Your task to perform on an android device: Search for seafood restaurants on Google Maps Image 0: 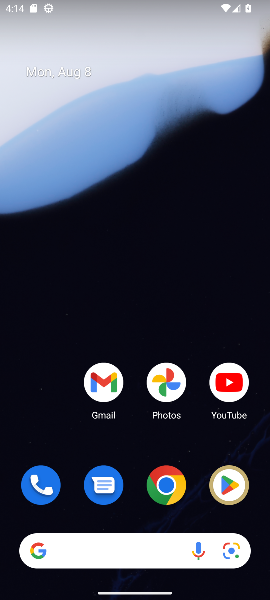
Step 0: drag from (193, 514) to (122, 141)
Your task to perform on an android device: Search for seafood restaurants on Google Maps Image 1: 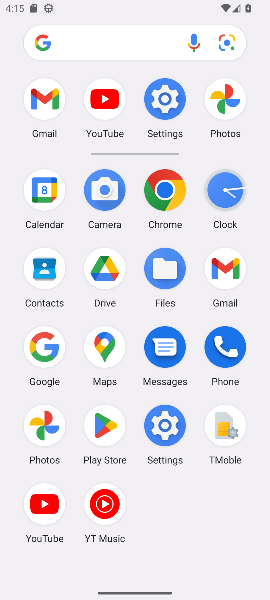
Step 1: click (110, 350)
Your task to perform on an android device: Search for seafood restaurants on Google Maps Image 2: 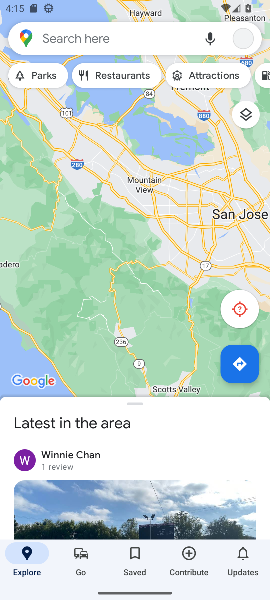
Step 2: click (82, 45)
Your task to perform on an android device: Search for seafood restaurants on Google Maps Image 3: 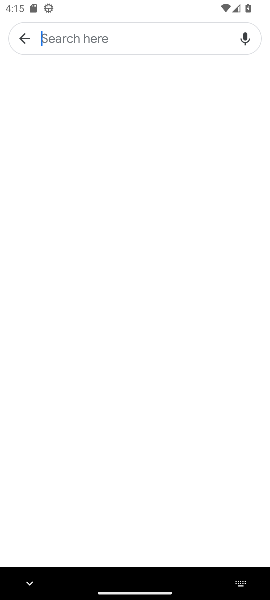
Step 3: type "seafood restaurants"
Your task to perform on an android device: Search for seafood restaurants on Google Maps Image 4: 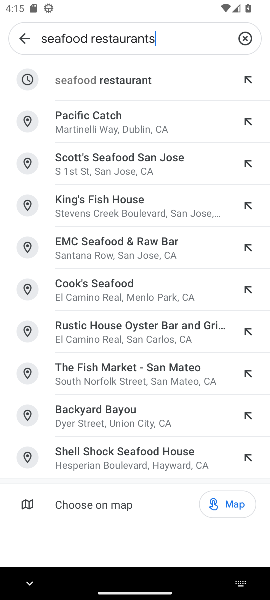
Step 4: click (87, 88)
Your task to perform on an android device: Search for seafood restaurants on Google Maps Image 5: 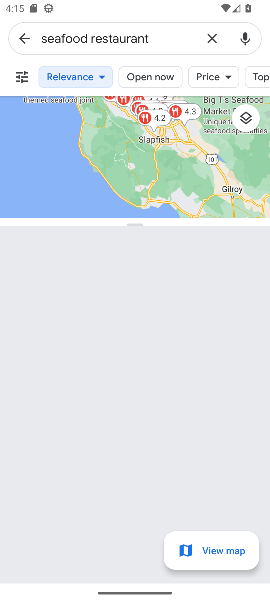
Step 5: task complete